Your task to perform on an android device: move a message to another label in the gmail app Image 0: 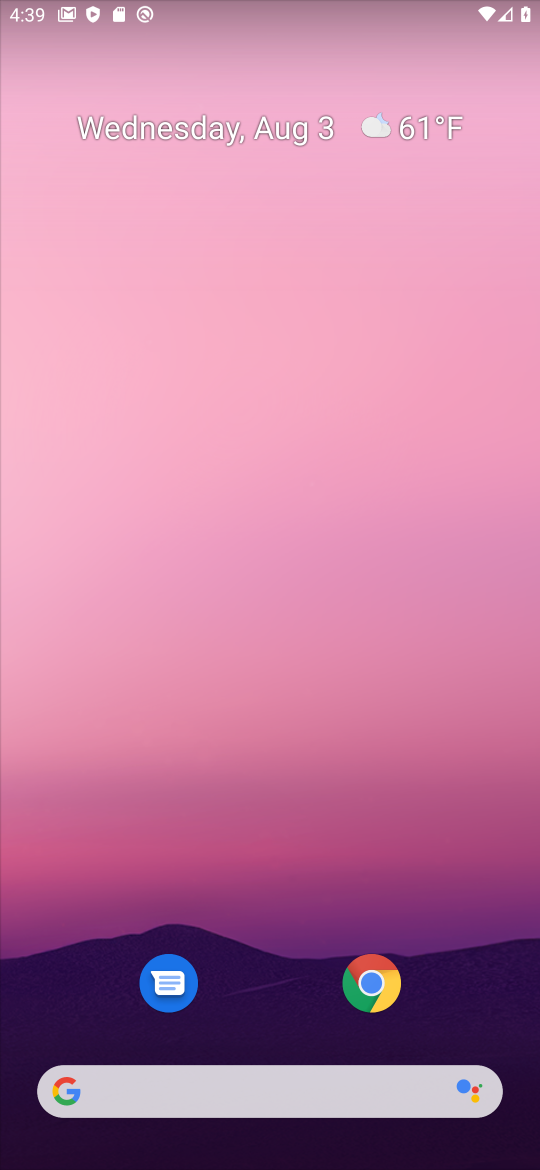
Step 0: press home button
Your task to perform on an android device: move a message to another label in the gmail app Image 1: 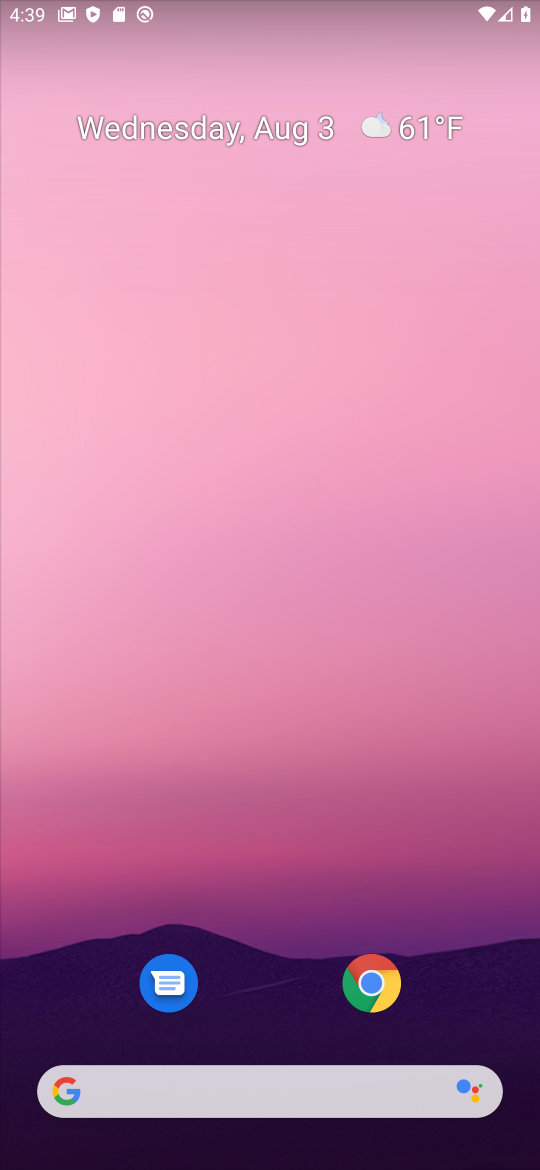
Step 1: drag from (341, 680) to (443, 215)
Your task to perform on an android device: move a message to another label in the gmail app Image 2: 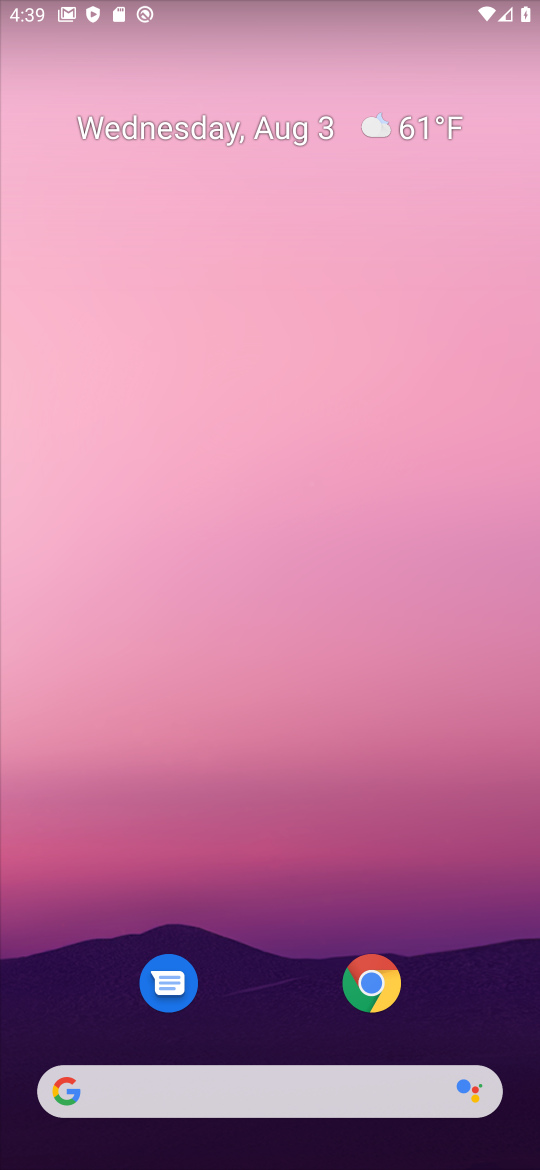
Step 2: drag from (282, 954) to (322, 340)
Your task to perform on an android device: move a message to another label in the gmail app Image 3: 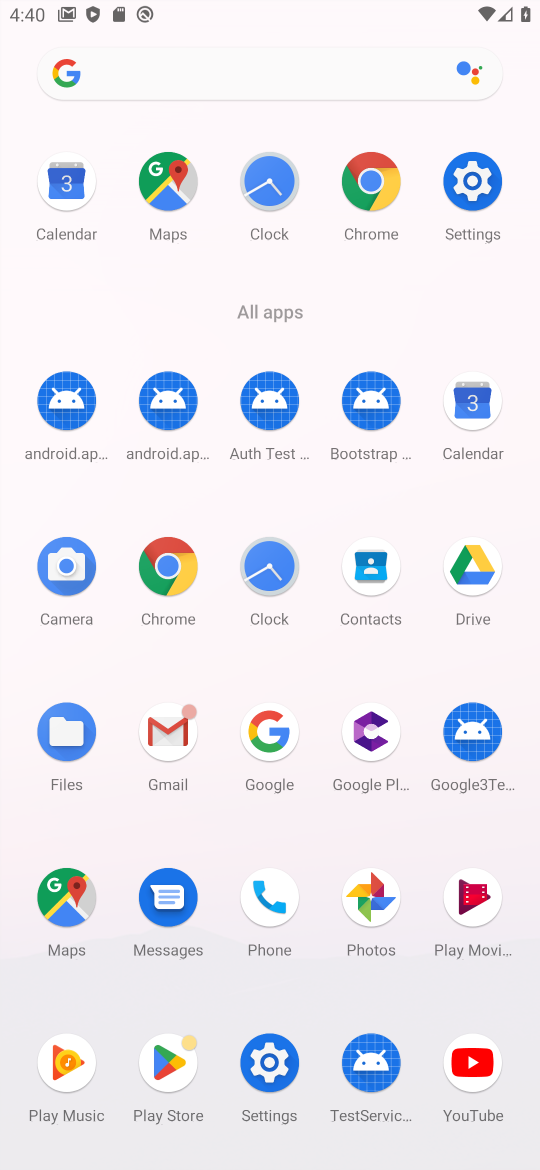
Step 3: click (168, 727)
Your task to perform on an android device: move a message to another label in the gmail app Image 4: 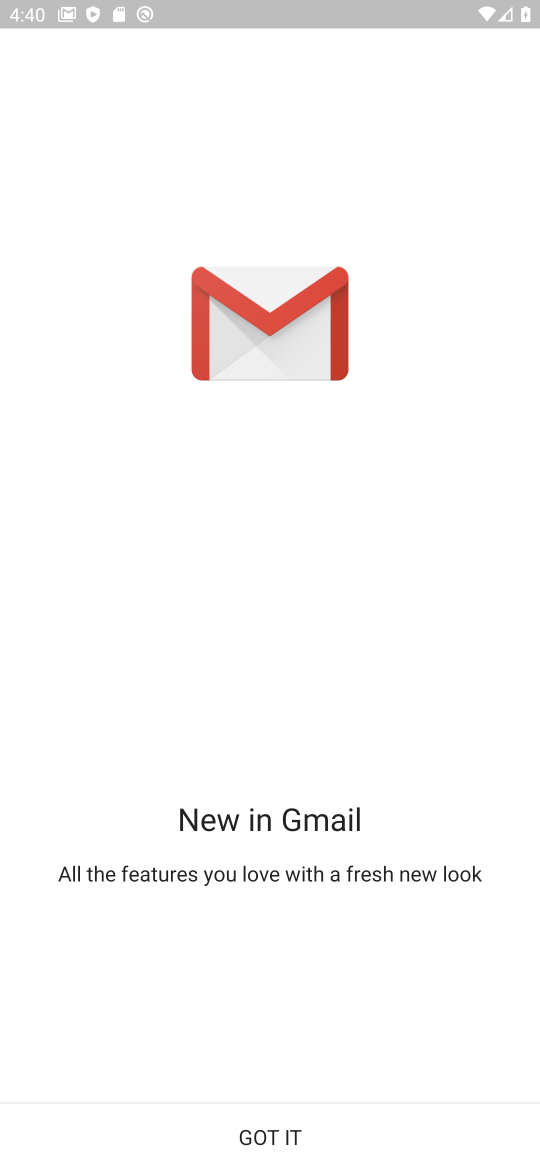
Step 4: click (280, 1136)
Your task to perform on an android device: move a message to another label in the gmail app Image 5: 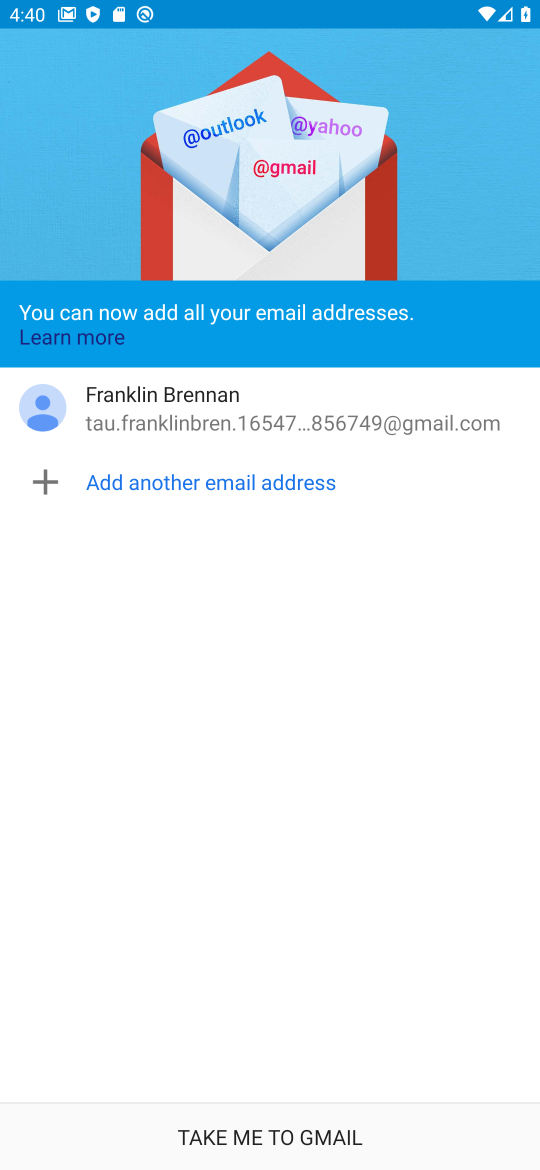
Step 5: click (279, 1135)
Your task to perform on an android device: move a message to another label in the gmail app Image 6: 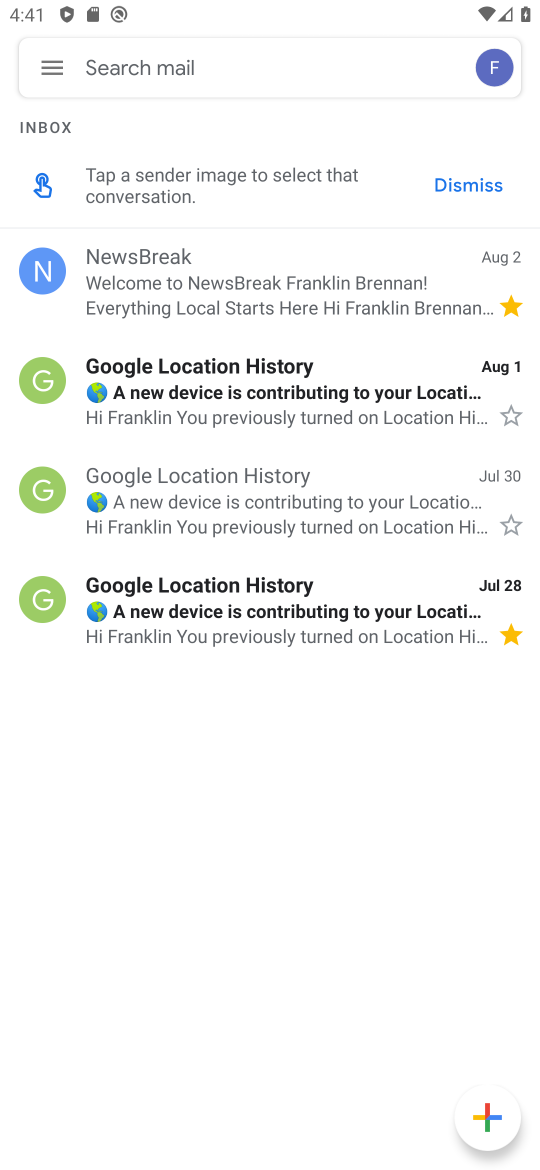
Step 6: click (195, 286)
Your task to perform on an android device: move a message to another label in the gmail app Image 7: 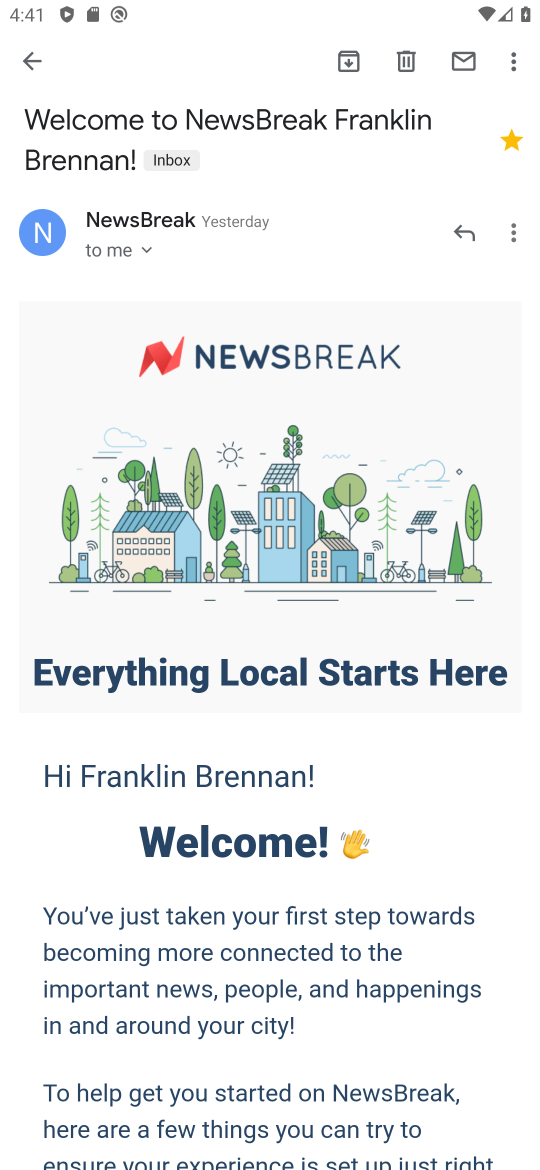
Step 7: click (514, 63)
Your task to perform on an android device: move a message to another label in the gmail app Image 8: 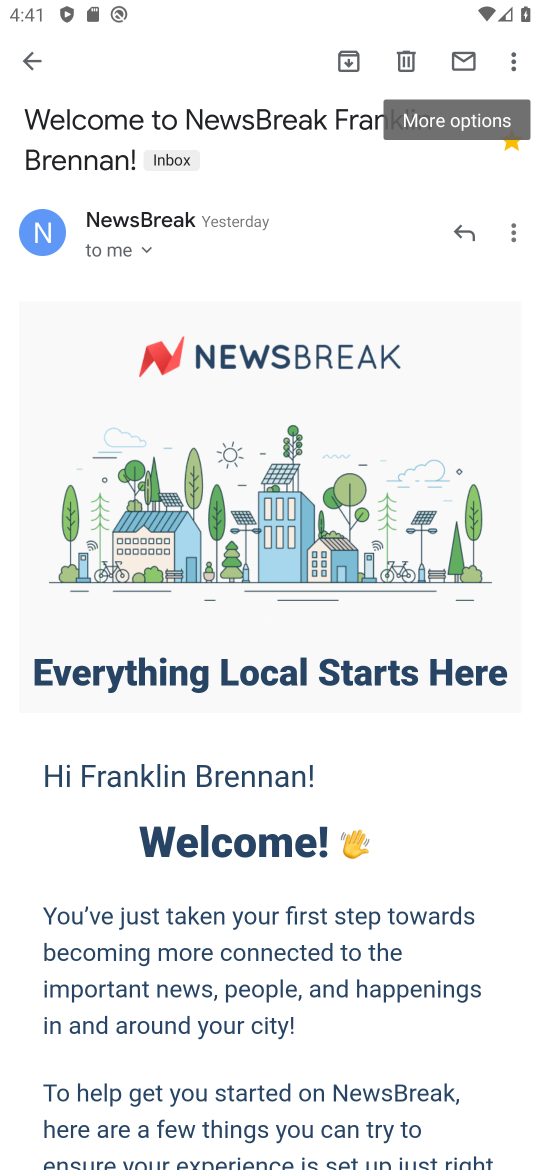
Step 8: click (514, 63)
Your task to perform on an android device: move a message to another label in the gmail app Image 9: 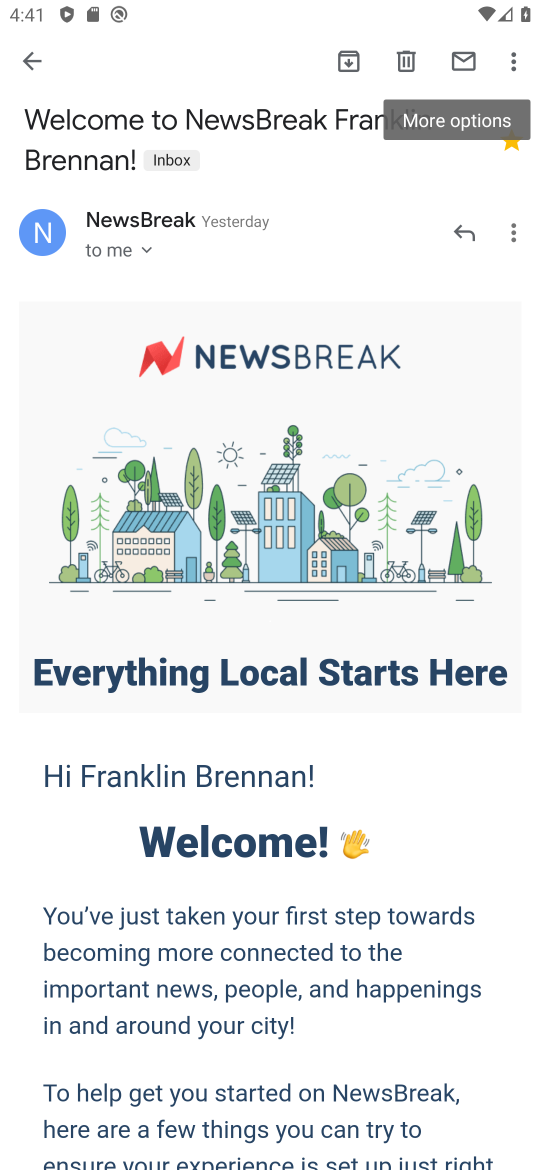
Step 9: click (15, 70)
Your task to perform on an android device: move a message to another label in the gmail app Image 10: 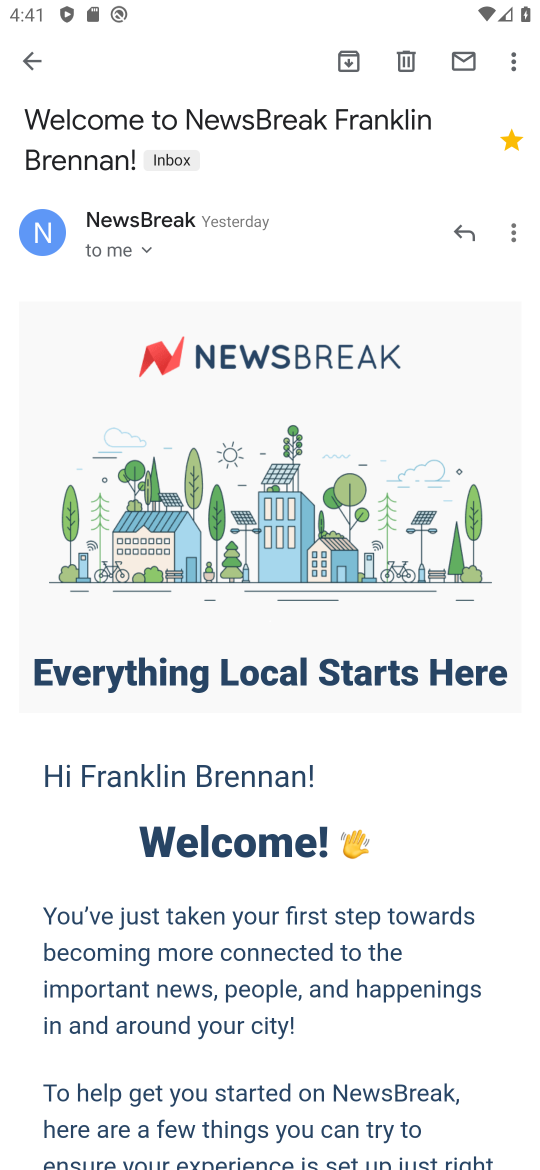
Step 10: click (25, 62)
Your task to perform on an android device: move a message to another label in the gmail app Image 11: 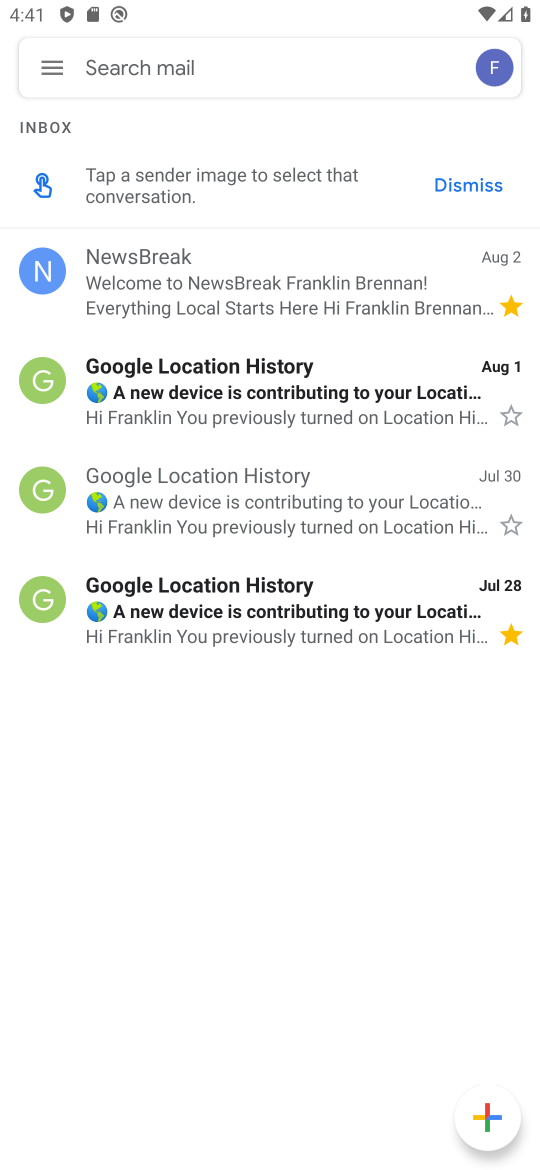
Step 11: click (300, 286)
Your task to perform on an android device: move a message to another label in the gmail app Image 12: 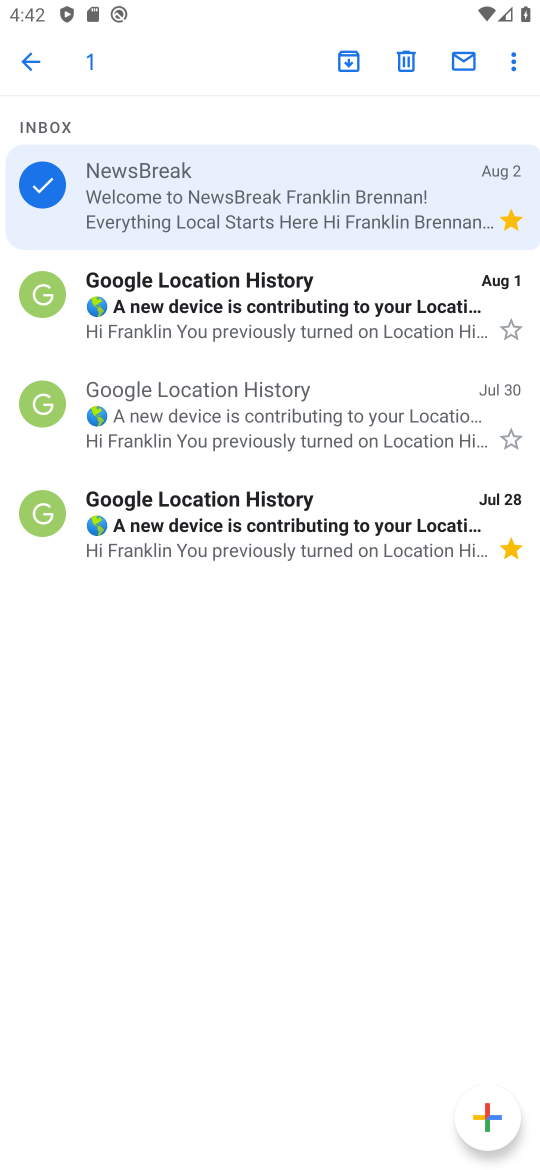
Step 12: click (511, 68)
Your task to perform on an android device: move a message to another label in the gmail app Image 13: 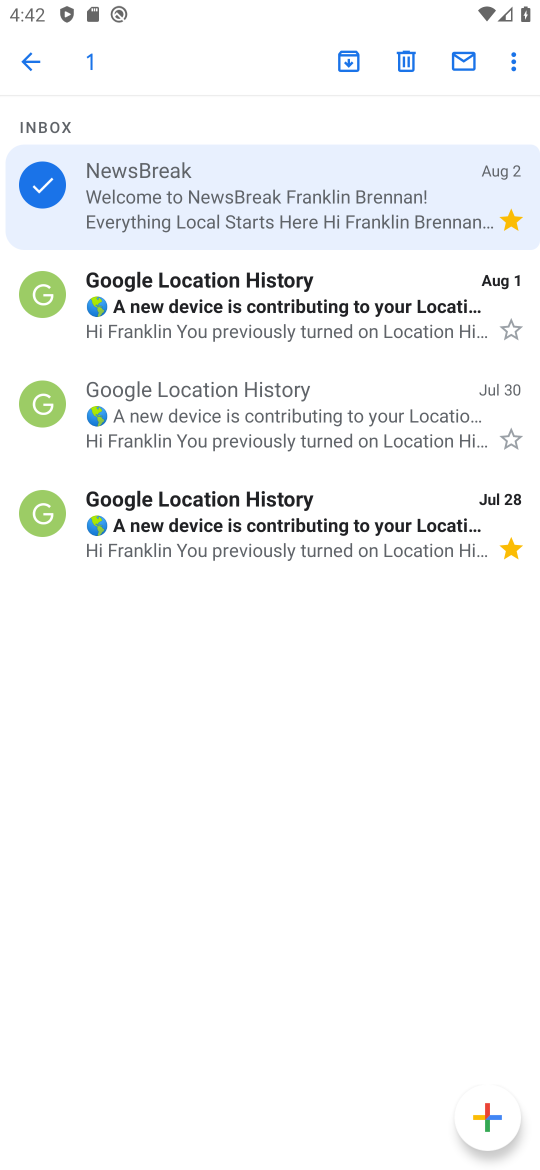
Step 13: click (506, 54)
Your task to perform on an android device: move a message to another label in the gmail app Image 14: 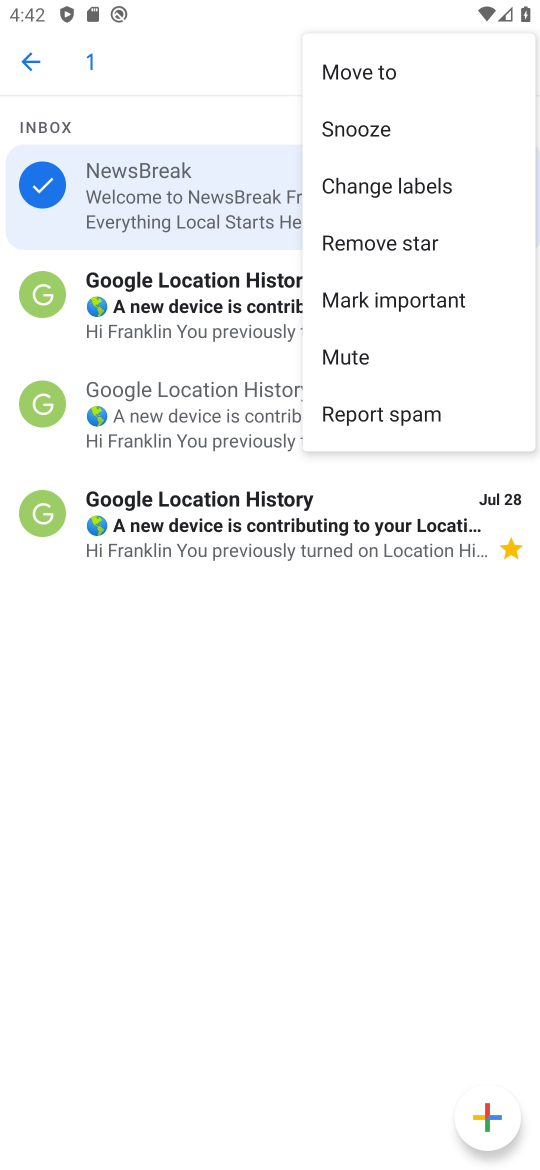
Step 14: click (413, 187)
Your task to perform on an android device: move a message to another label in the gmail app Image 15: 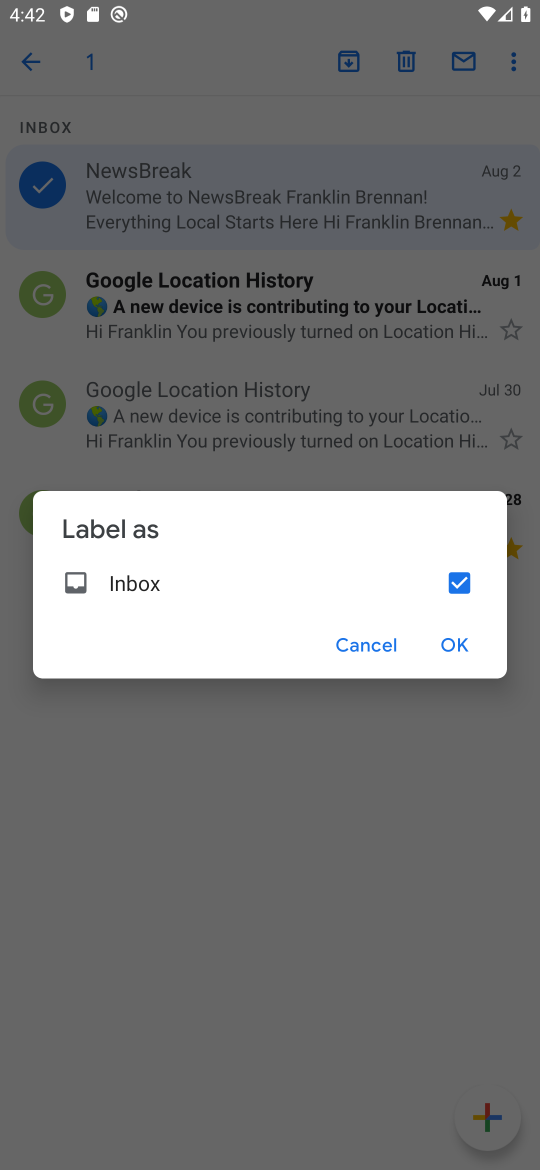
Step 15: click (456, 654)
Your task to perform on an android device: move a message to another label in the gmail app Image 16: 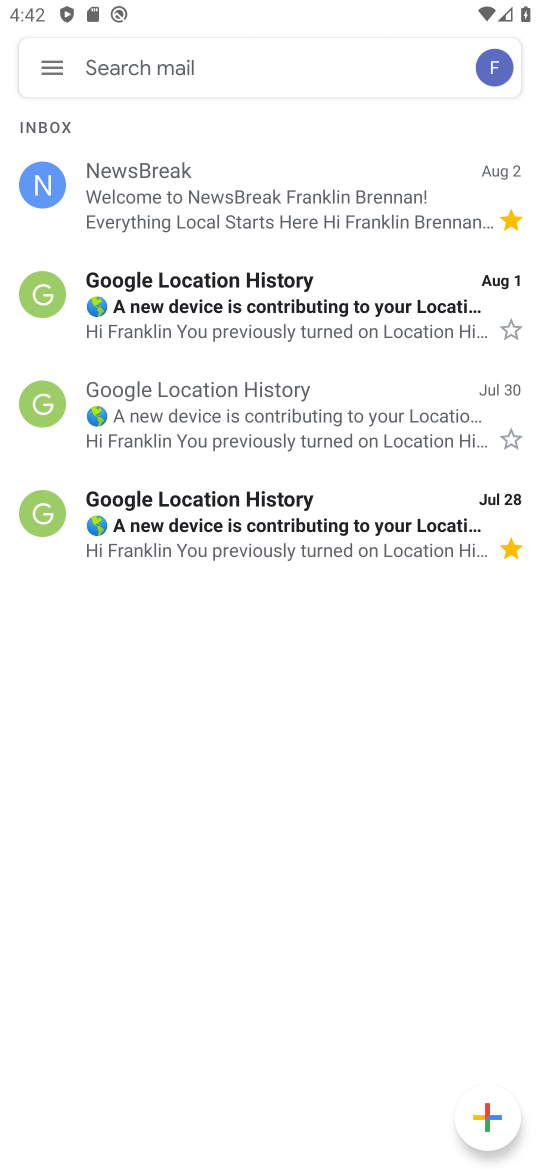
Step 16: task complete